Your task to perform on an android device: see sites visited before in the chrome app Image 0: 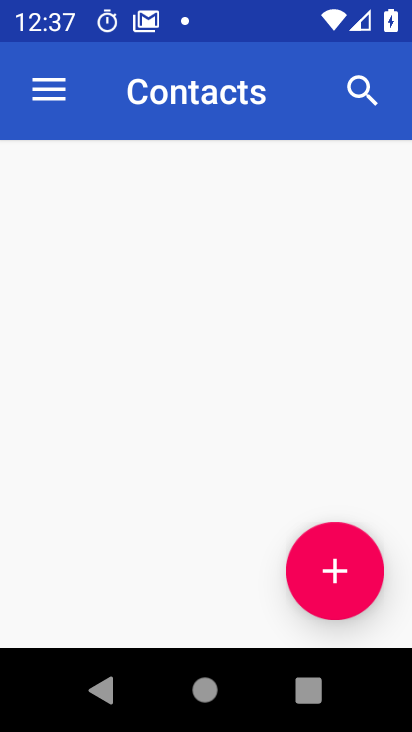
Step 0: press home button
Your task to perform on an android device: see sites visited before in the chrome app Image 1: 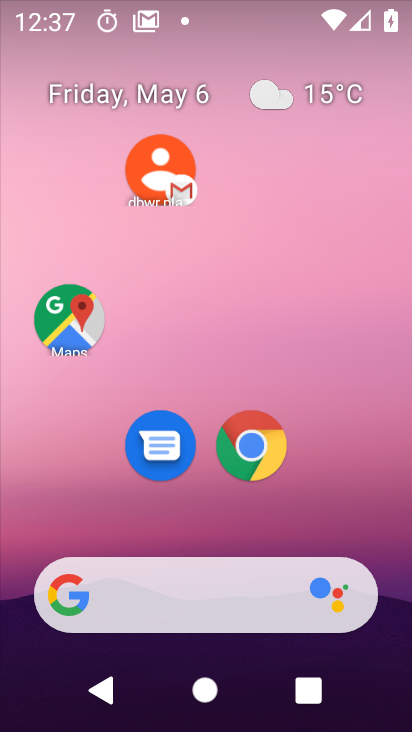
Step 1: drag from (350, 518) to (189, 48)
Your task to perform on an android device: see sites visited before in the chrome app Image 2: 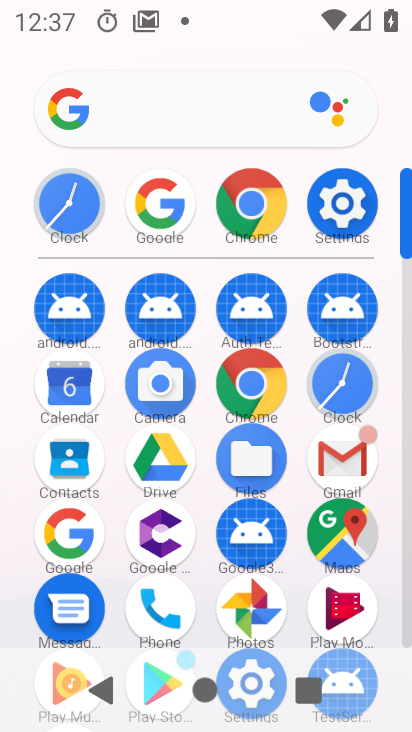
Step 2: click (257, 214)
Your task to perform on an android device: see sites visited before in the chrome app Image 3: 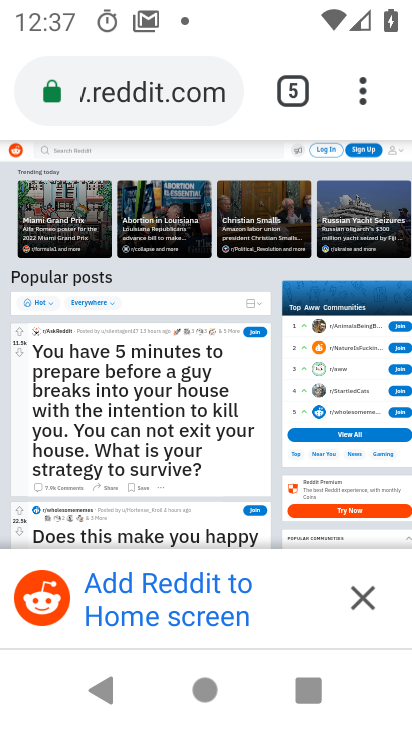
Step 3: click (370, 82)
Your task to perform on an android device: see sites visited before in the chrome app Image 4: 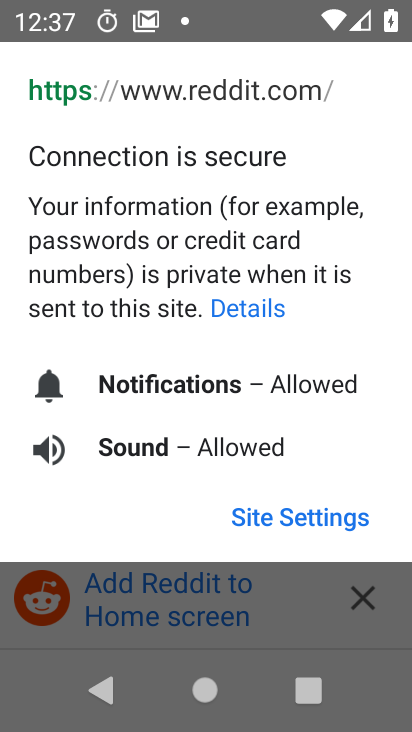
Step 4: click (306, 522)
Your task to perform on an android device: see sites visited before in the chrome app Image 5: 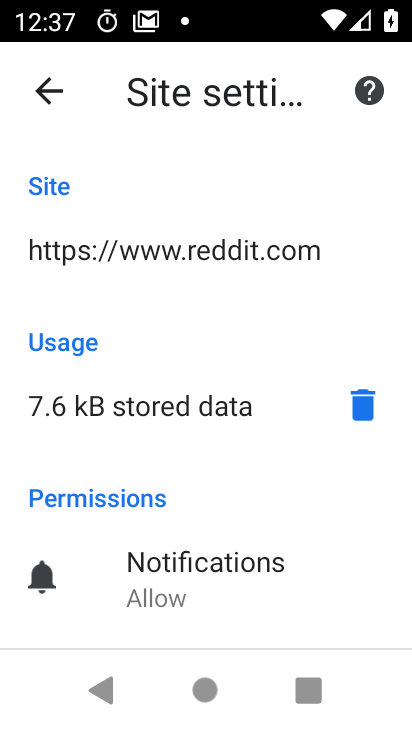
Step 5: click (35, 78)
Your task to perform on an android device: see sites visited before in the chrome app Image 6: 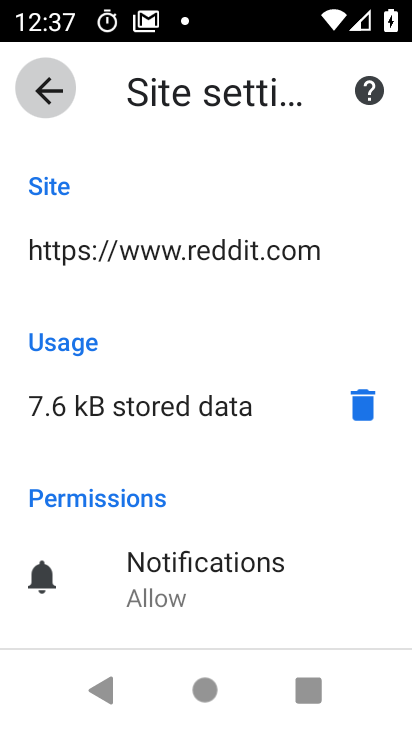
Step 6: click (36, 89)
Your task to perform on an android device: see sites visited before in the chrome app Image 7: 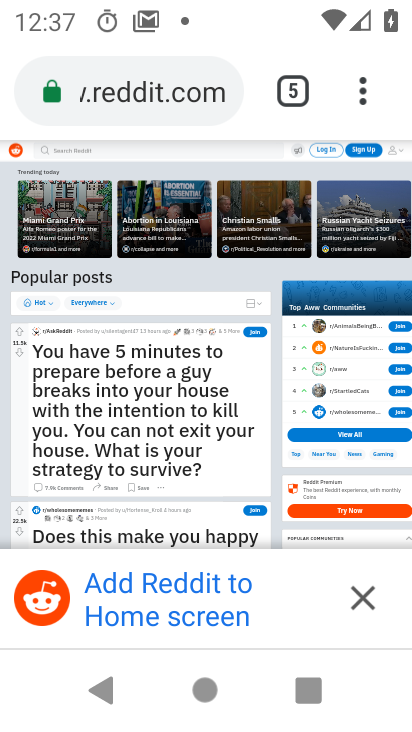
Step 7: drag from (361, 90) to (108, 479)
Your task to perform on an android device: see sites visited before in the chrome app Image 8: 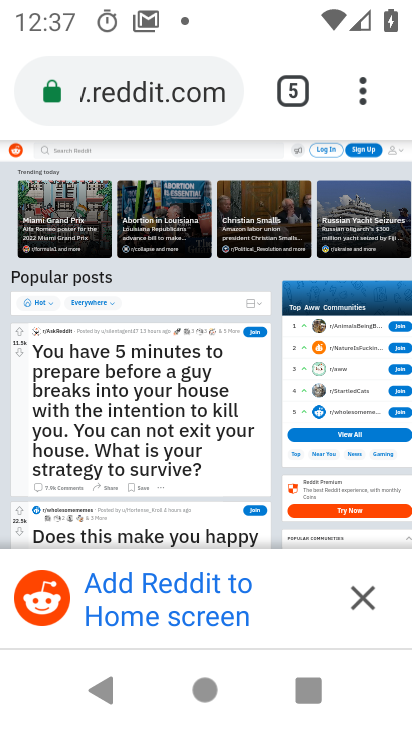
Step 8: click (107, 478)
Your task to perform on an android device: see sites visited before in the chrome app Image 9: 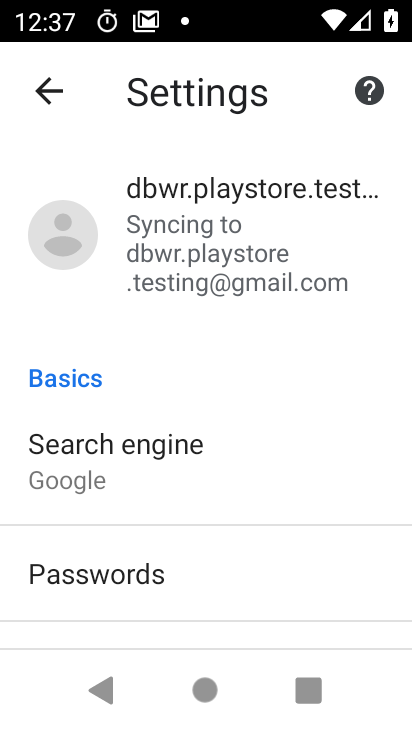
Step 9: drag from (154, 541) to (142, 300)
Your task to perform on an android device: see sites visited before in the chrome app Image 10: 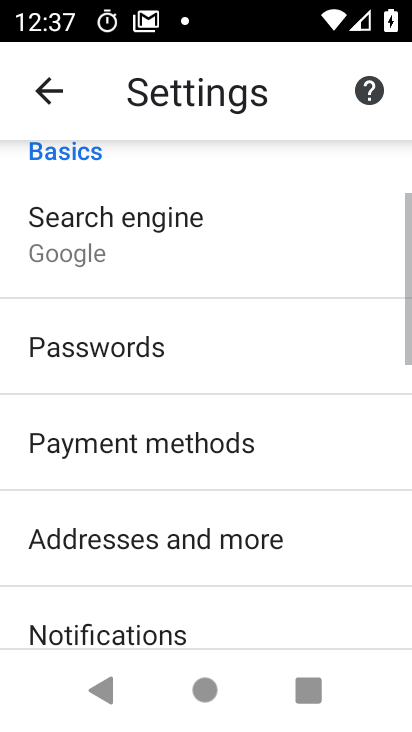
Step 10: click (121, 144)
Your task to perform on an android device: see sites visited before in the chrome app Image 11: 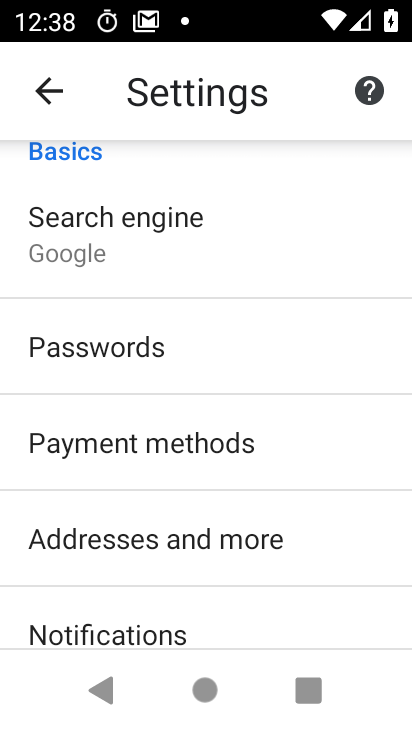
Step 11: drag from (123, 424) to (155, 546)
Your task to perform on an android device: see sites visited before in the chrome app Image 12: 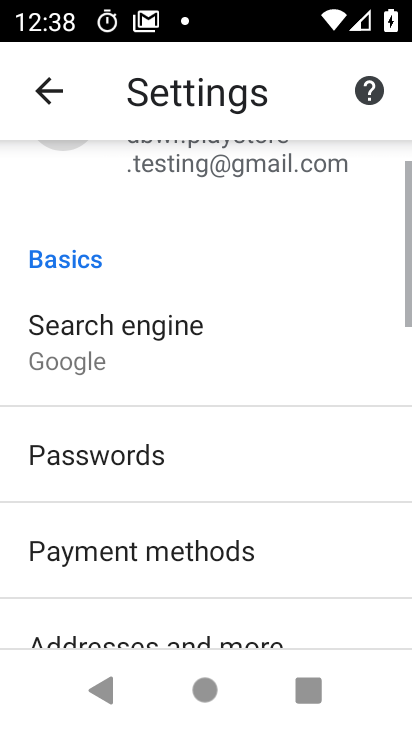
Step 12: drag from (153, 265) to (216, 596)
Your task to perform on an android device: see sites visited before in the chrome app Image 13: 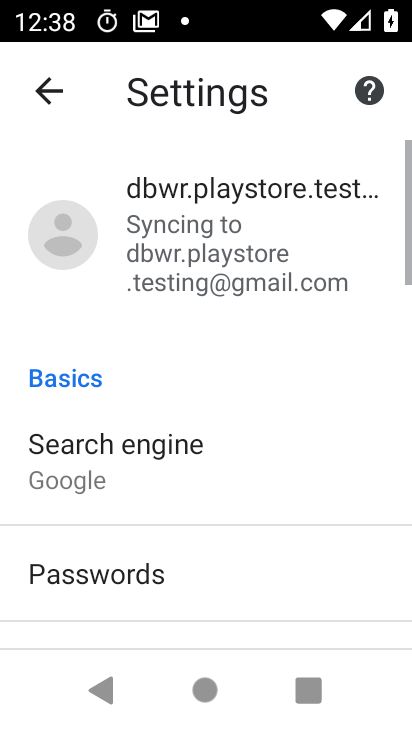
Step 13: click (37, 91)
Your task to perform on an android device: see sites visited before in the chrome app Image 14: 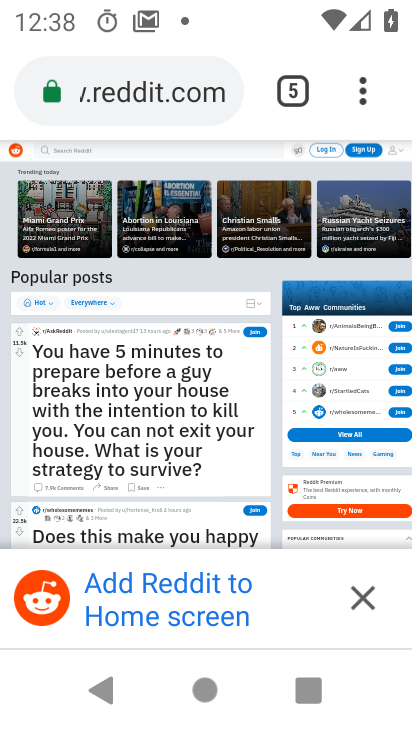
Step 14: click (362, 90)
Your task to perform on an android device: see sites visited before in the chrome app Image 15: 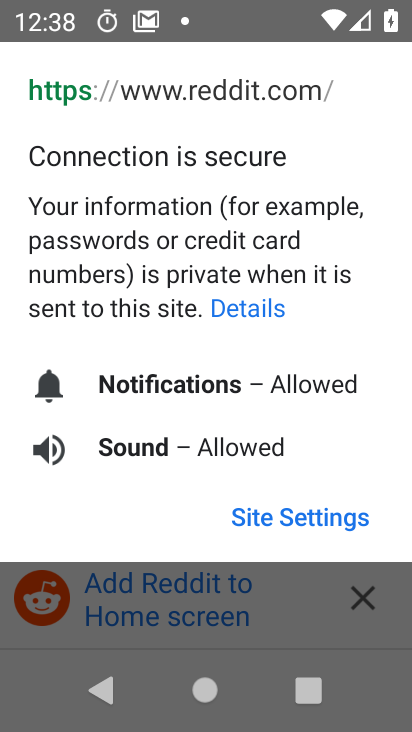
Step 15: click (302, 525)
Your task to perform on an android device: see sites visited before in the chrome app Image 16: 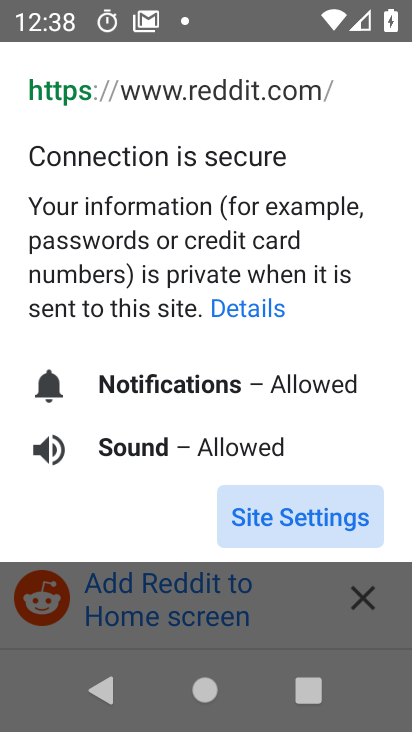
Step 16: click (309, 595)
Your task to perform on an android device: see sites visited before in the chrome app Image 17: 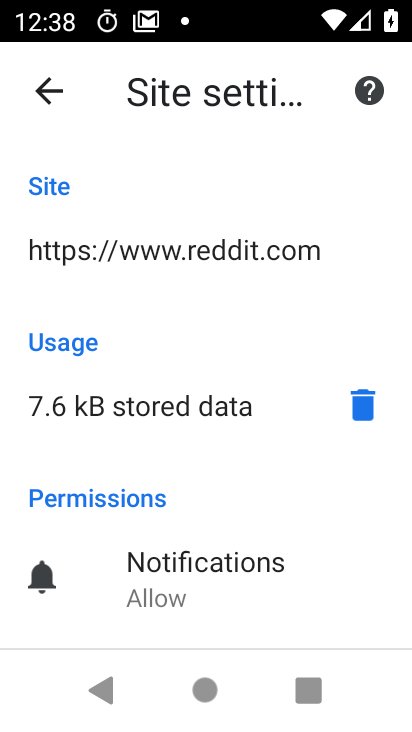
Step 17: click (46, 81)
Your task to perform on an android device: see sites visited before in the chrome app Image 18: 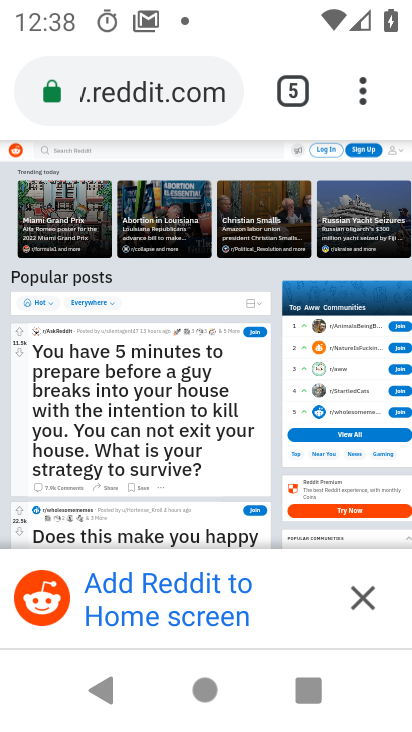
Step 18: click (361, 90)
Your task to perform on an android device: see sites visited before in the chrome app Image 19: 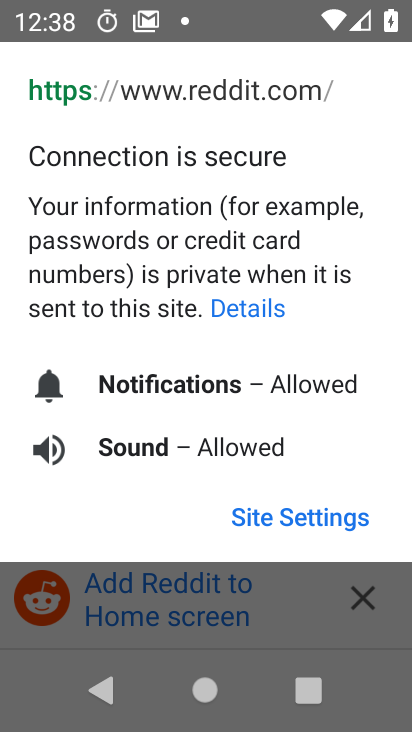
Step 19: click (197, 588)
Your task to perform on an android device: see sites visited before in the chrome app Image 20: 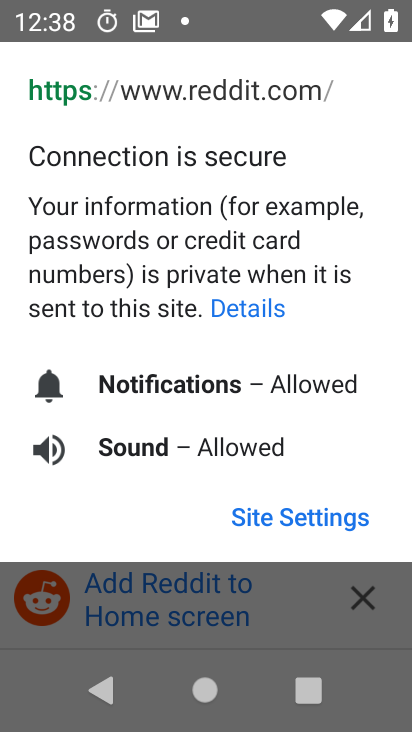
Step 20: click (283, 578)
Your task to perform on an android device: see sites visited before in the chrome app Image 21: 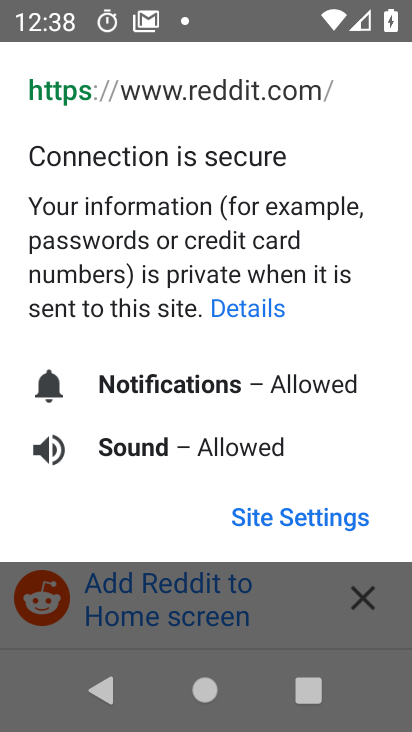
Step 21: click (237, 602)
Your task to perform on an android device: see sites visited before in the chrome app Image 22: 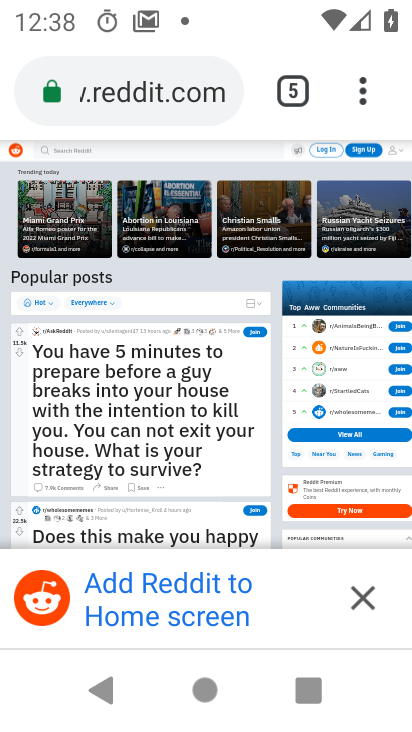
Step 22: drag from (360, 84) to (129, 433)
Your task to perform on an android device: see sites visited before in the chrome app Image 23: 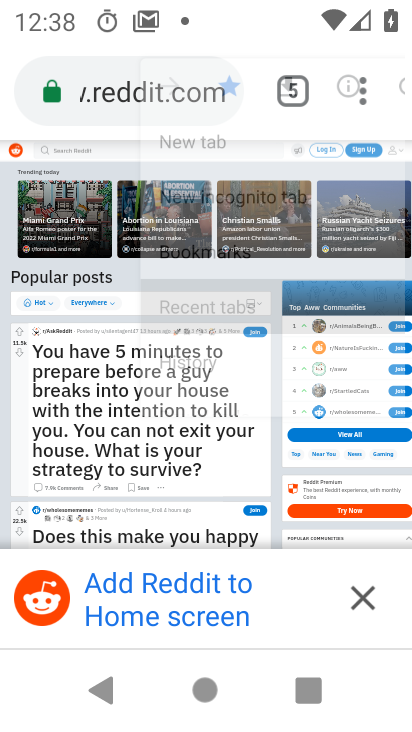
Step 23: click (129, 433)
Your task to perform on an android device: see sites visited before in the chrome app Image 24: 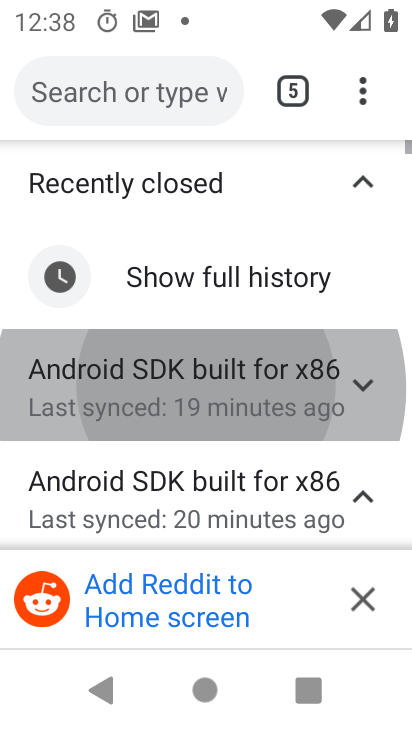
Step 24: click (128, 432)
Your task to perform on an android device: see sites visited before in the chrome app Image 25: 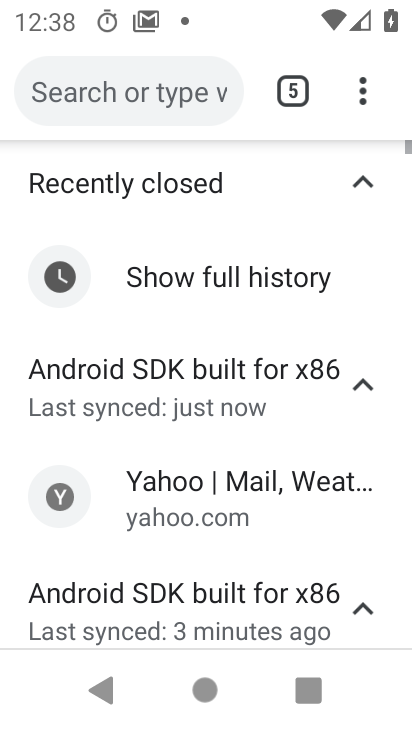
Step 25: task complete